Your task to perform on an android device: Open calendar and show me the third week of next month Image 0: 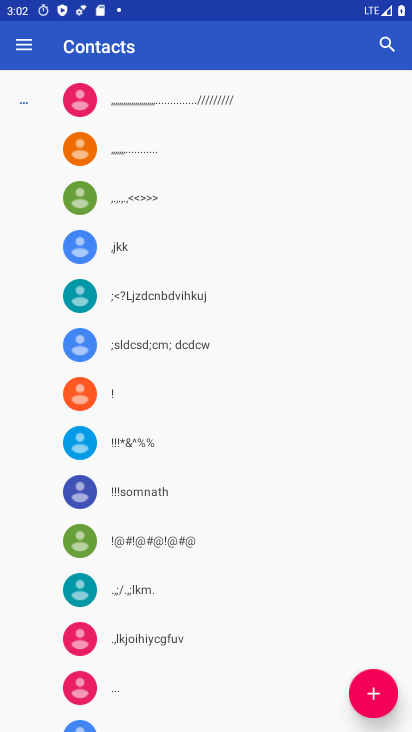
Step 0: press home button
Your task to perform on an android device: Open calendar and show me the third week of next month Image 1: 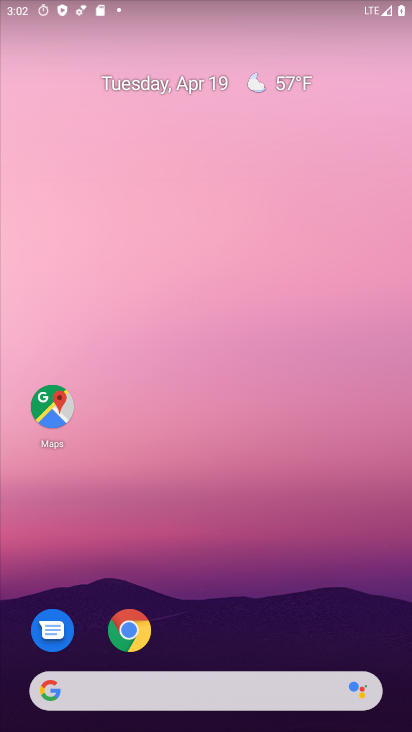
Step 1: drag from (239, 585) to (214, 9)
Your task to perform on an android device: Open calendar and show me the third week of next month Image 2: 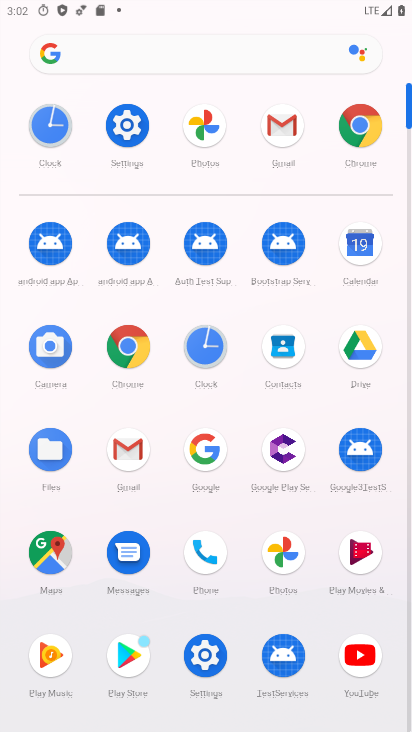
Step 2: click (363, 239)
Your task to perform on an android device: Open calendar and show me the third week of next month Image 3: 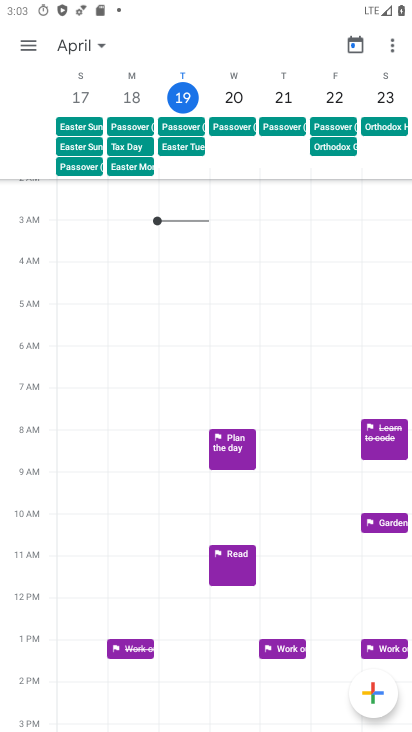
Step 3: click (102, 42)
Your task to perform on an android device: Open calendar and show me the third week of next month Image 4: 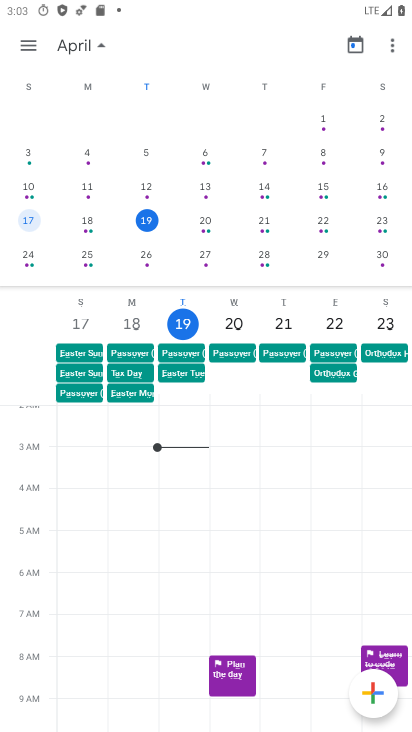
Step 4: drag from (349, 211) to (6, 135)
Your task to perform on an android device: Open calendar and show me the third week of next month Image 5: 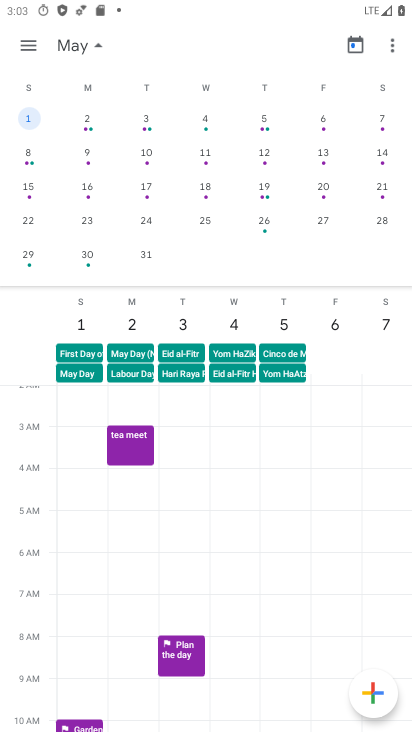
Step 5: click (39, 218)
Your task to perform on an android device: Open calendar and show me the third week of next month Image 6: 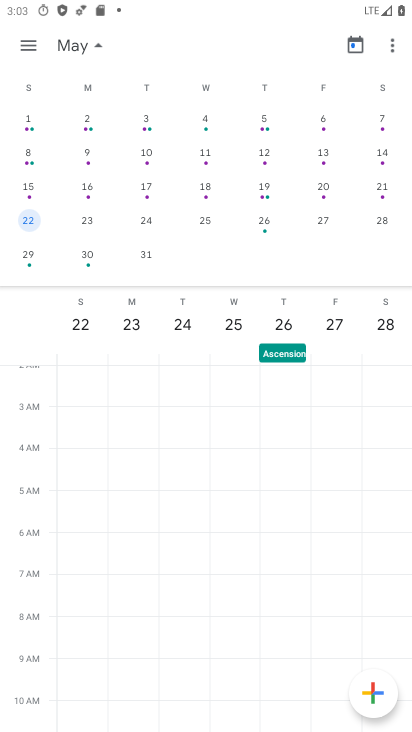
Step 6: click (35, 184)
Your task to perform on an android device: Open calendar and show me the third week of next month Image 7: 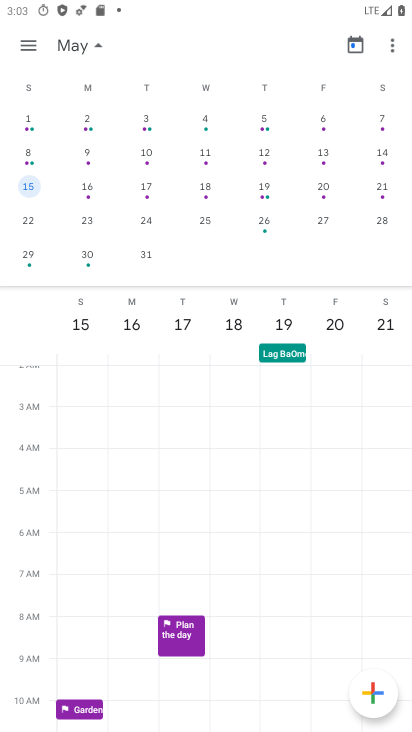
Step 7: task complete